Your task to perform on an android device: Go to internet settings Image 0: 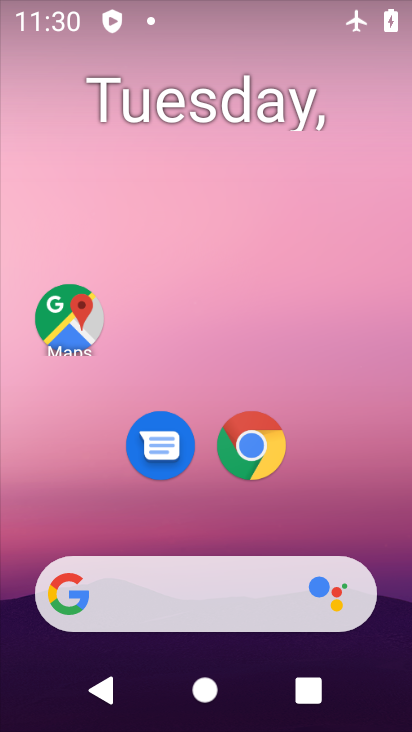
Step 0: drag from (373, 517) to (289, 16)
Your task to perform on an android device: Go to internet settings Image 1: 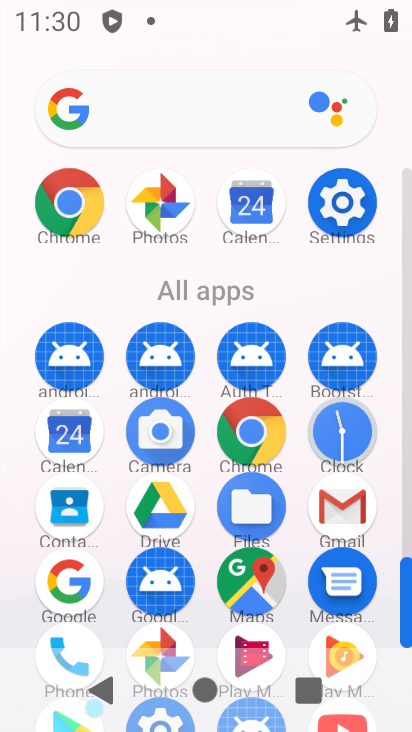
Step 1: drag from (1, 599) to (3, 507)
Your task to perform on an android device: Go to internet settings Image 2: 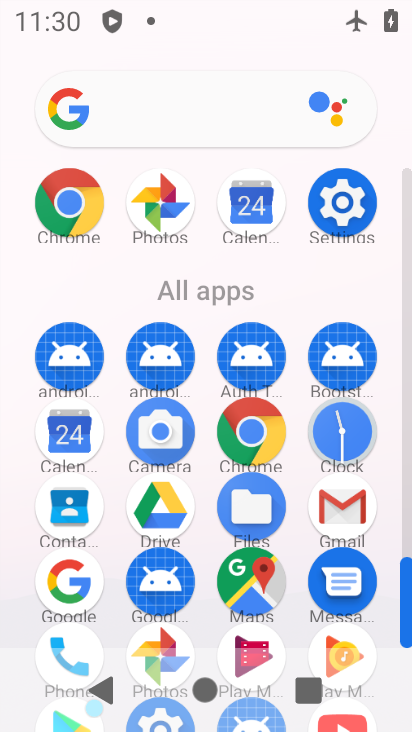
Step 2: drag from (11, 598) to (34, 299)
Your task to perform on an android device: Go to internet settings Image 3: 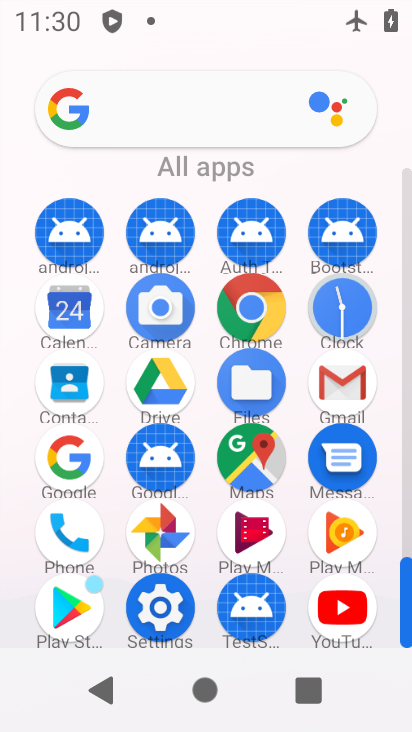
Step 3: click (158, 605)
Your task to perform on an android device: Go to internet settings Image 4: 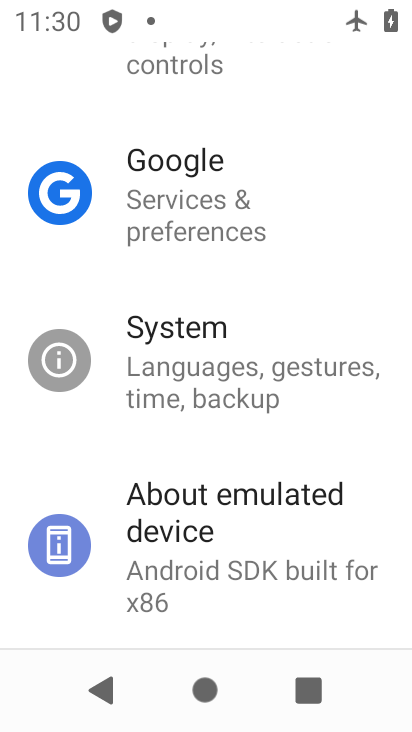
Step 4: drag from (294, 272) to (293, 566)
Your task to perform on an android device: Go to internet settings Image 5: 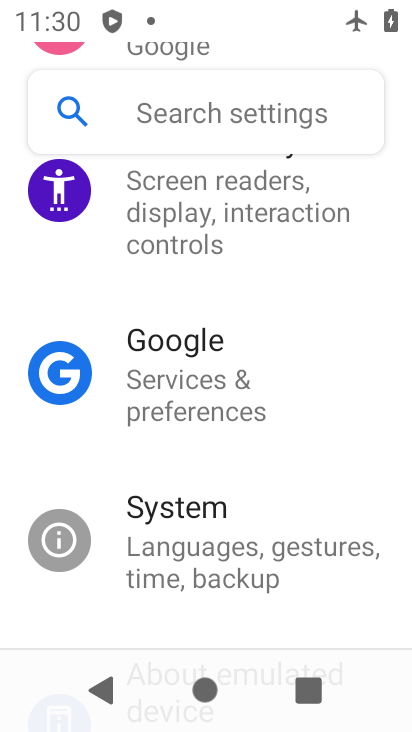
Step 5: drag from (258, 208) to (257, 562)
Your task to perform on an android device: Go to internet settings Image 6: 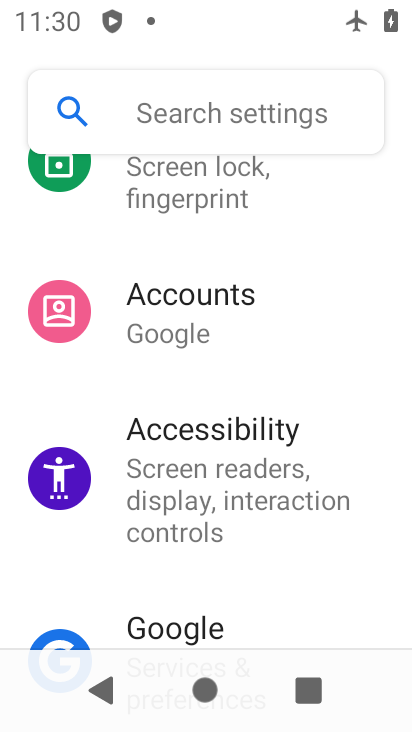
Step 6: drag from (275, 202) to (267, 532)
Your task to perform on an android device: Go to internet settings Image 7: 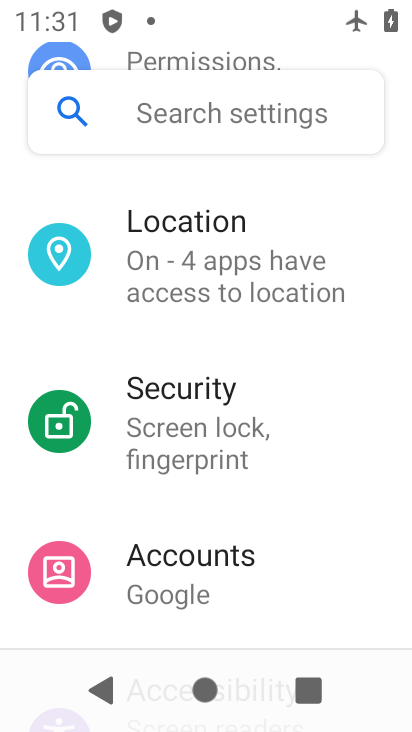
Step 7: drag from (280, 239) to (262, 569)
Your task to perform on an android device: Go to internet settings Image 8: 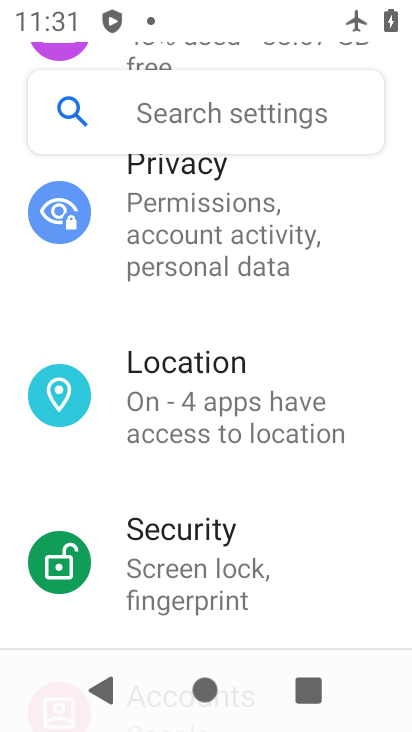
Step 8: drag from (290, 198) to (288, 557)
Your task to perform on an android device: Go to internet settings Image 9: 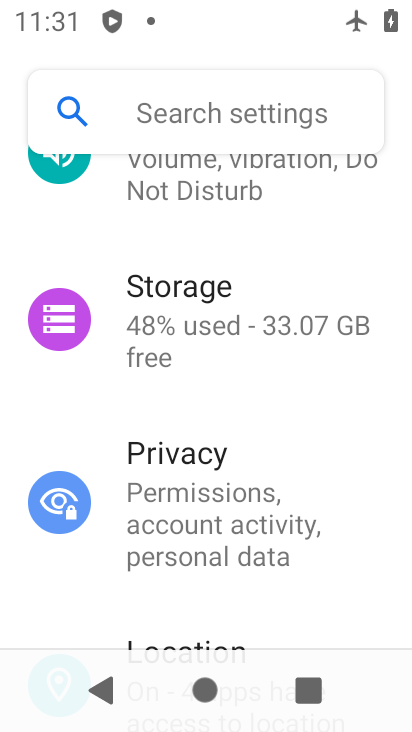
Step 9: drag from (287, 244) to (289, 610)
Your task to perform on an android device: Go to internet settings Image 10: 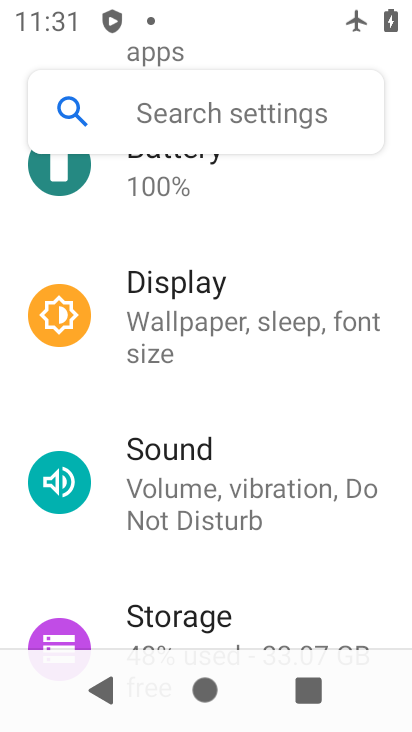
Step 10: drag from (265, 297) to (255, 606)
Your task to perform on an android device: Go to internet settings Image 11: 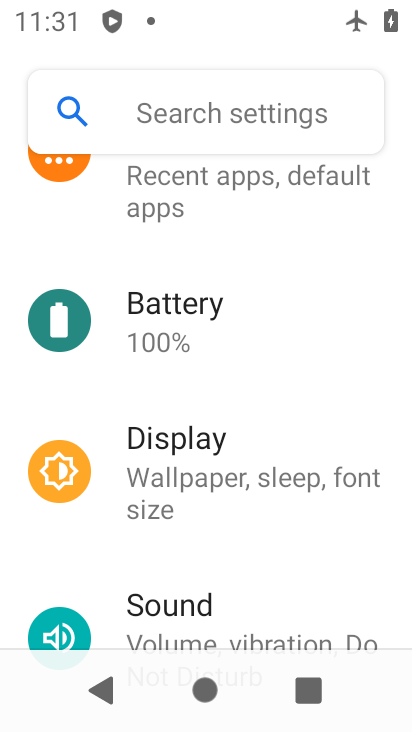
Step 11: drag from (261, 301) to (236, 608)
Your task to perform on an android device: Go to internet settings Image 12: 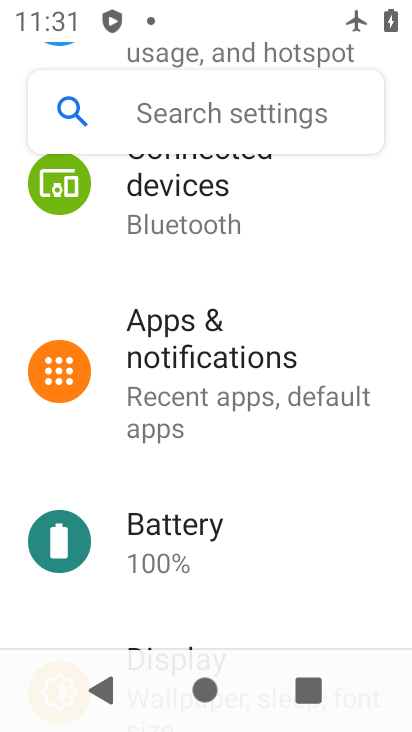
Step 12: drag from (264, 384) to (265, 613)
Your task to perform on an android device: Go to internet settings Image 13: 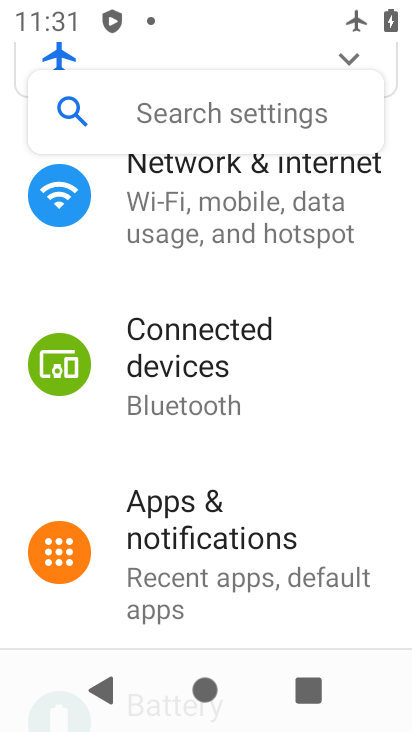
Step 13: drag from (305, 221) to (303, 560)
Your task to perform on an android device: Go to internet settings Image 14: 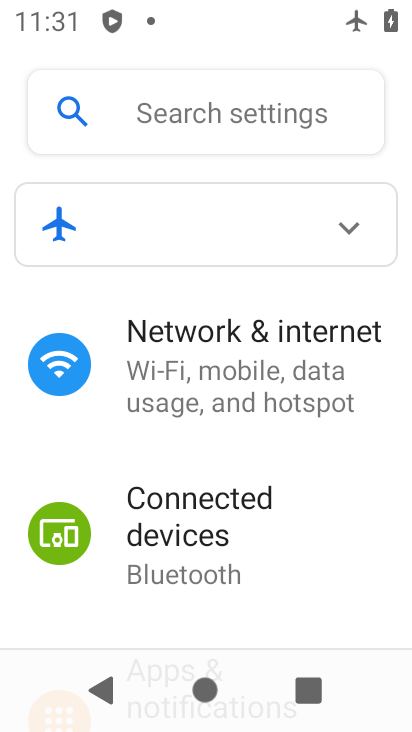
Step 14: click (252, 347)
Your task to perform on an android device: Go to internet settings Image 15: 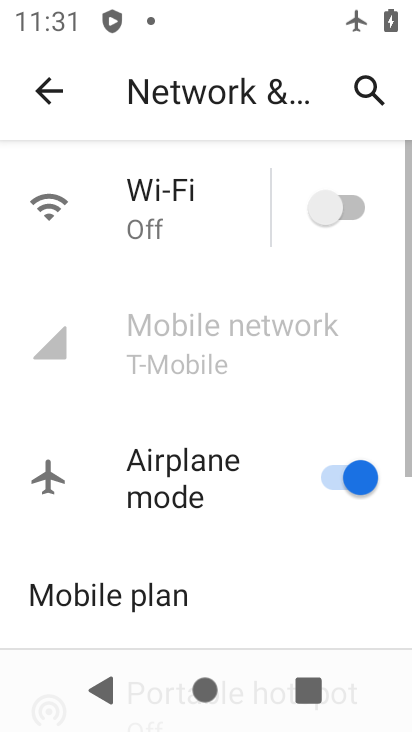
Step 15: drag from (224, 546) to (203, 224)
Your task to perform on an android device: Go to internet settings Image 16: 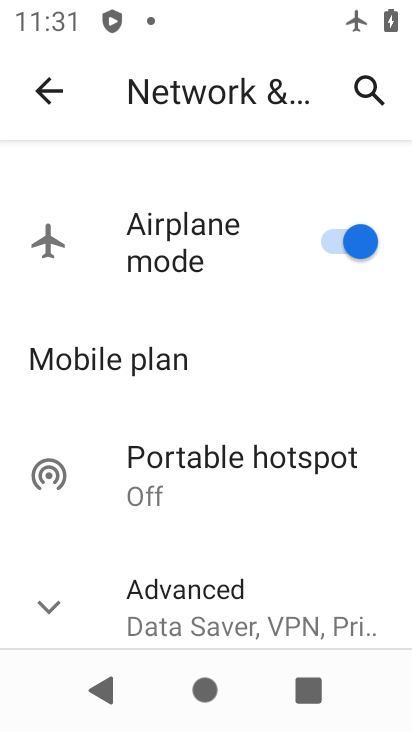
Step 16: drag from (215, 526) to (219, 182)
Your task to perform on an android device: Go to internet settings Image 17: 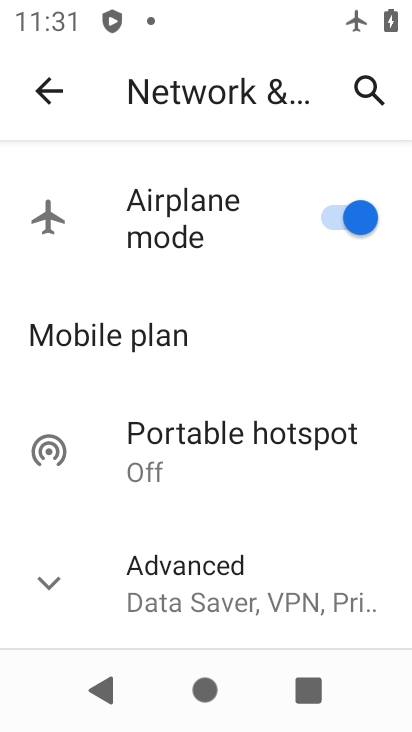
Step 17: click (44, 572)
Your task to perform on an android device: Go to internet settings Image 18: 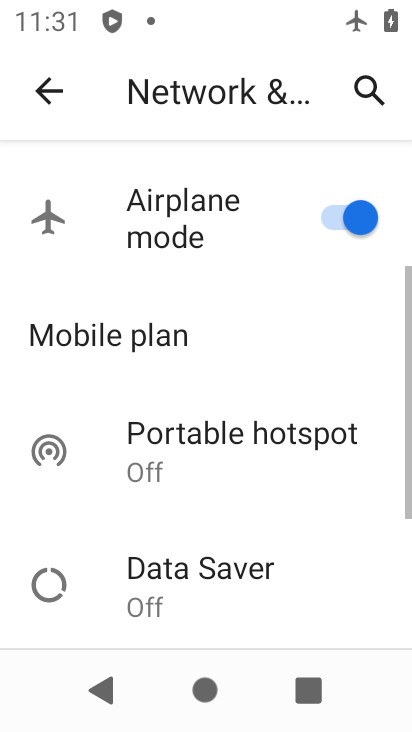
Step 18: task complete